Your task to perform on an android device: Go to internet settings Image 0: 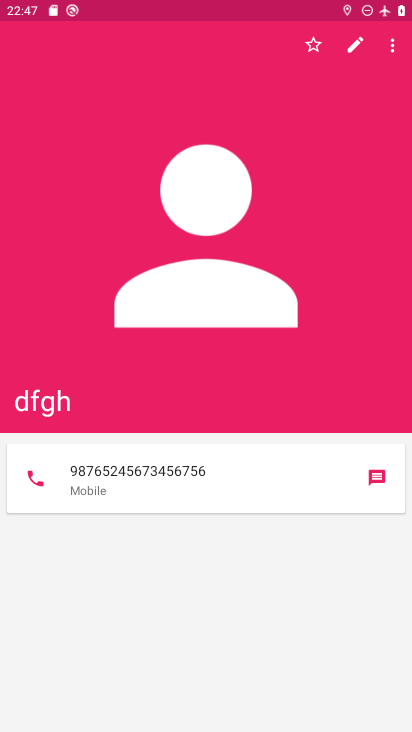
Step 0: press home button
Your task to perform on an android device: Go to internet settings Image 1: 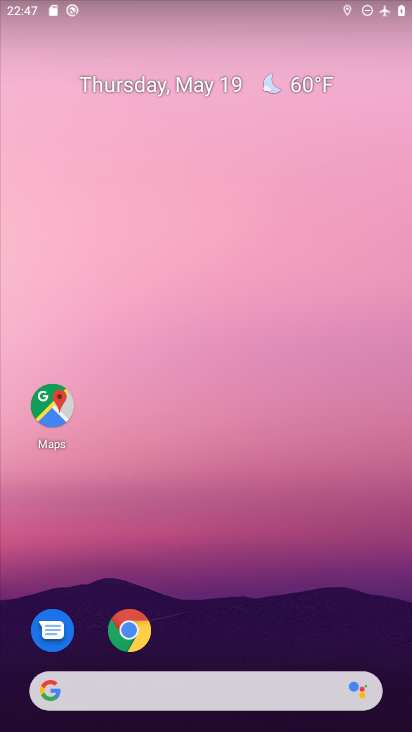
Step 1: drag from (215, 538) to (200, 147)
Your task to perform on an android device: Go to internet settings Image 2: 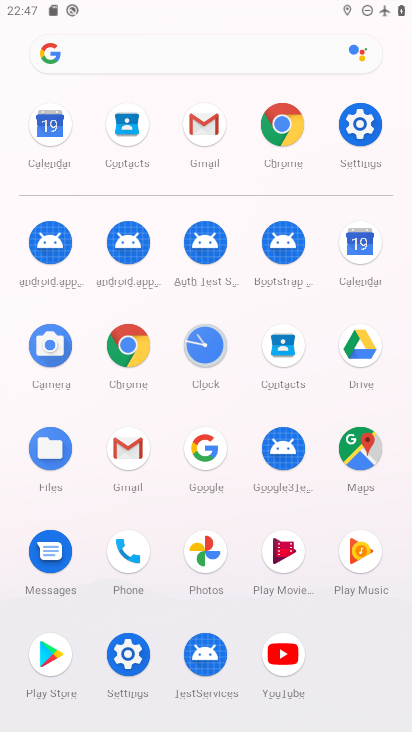
Step 2: click (130, 646)
Your task to perform on an android device: Go to internet settings Image 3: 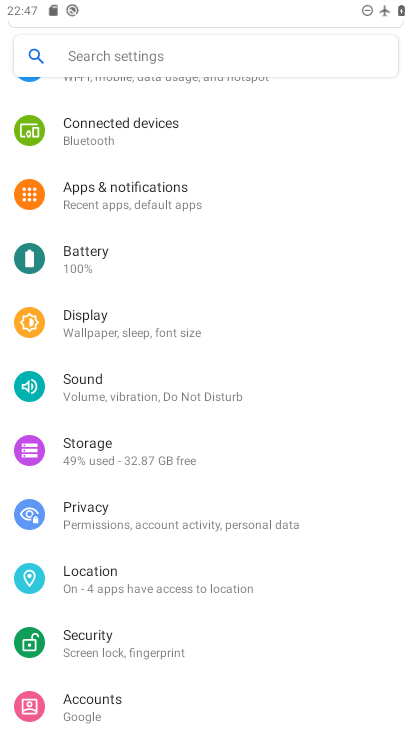
Step 3: drag from (221, 141) to (198, 609)
Your task to perform on an android device: Go to internet settings Image 4: 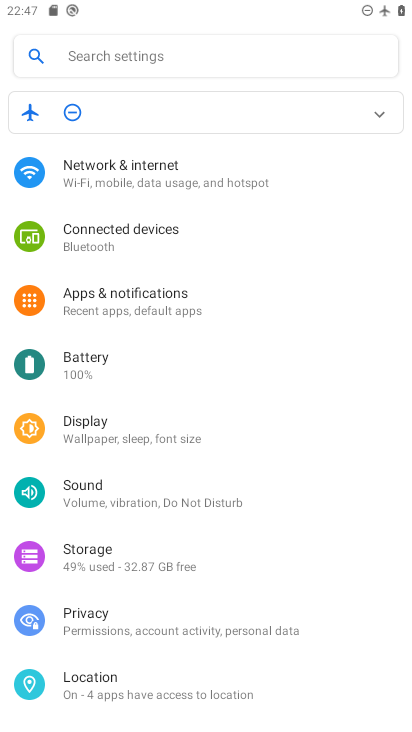
Step 4: click (114, 121)
Your task to perform on an android device: Go to internet settings Image 5: 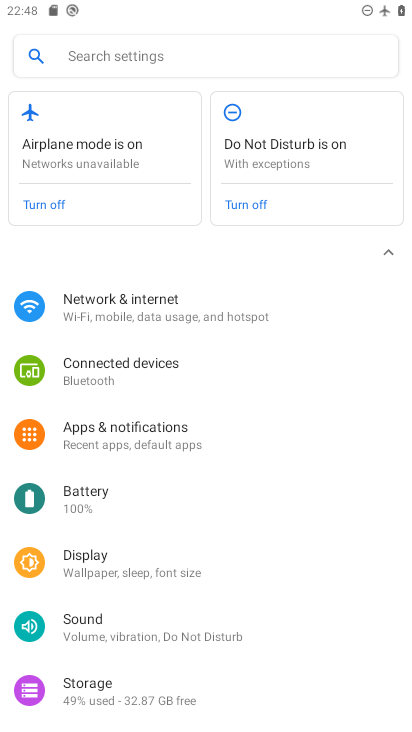
Step 5: click (134, 290)
Your task to perform on an android device: Go to internet settings Image 6: 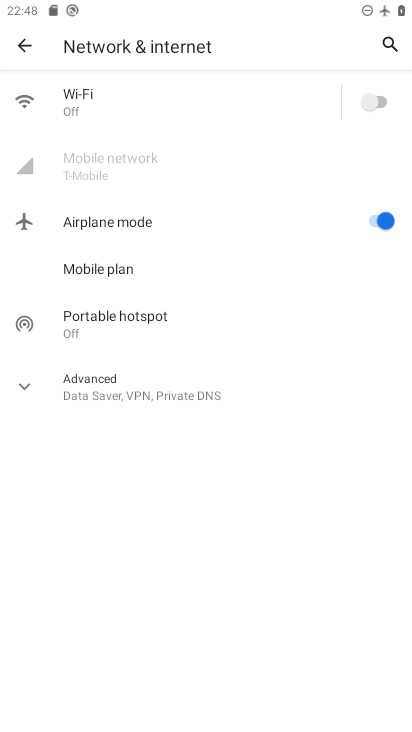
Step 6: task complete